Your task to perform on an android device: turn off improve location accuracy Image 0: 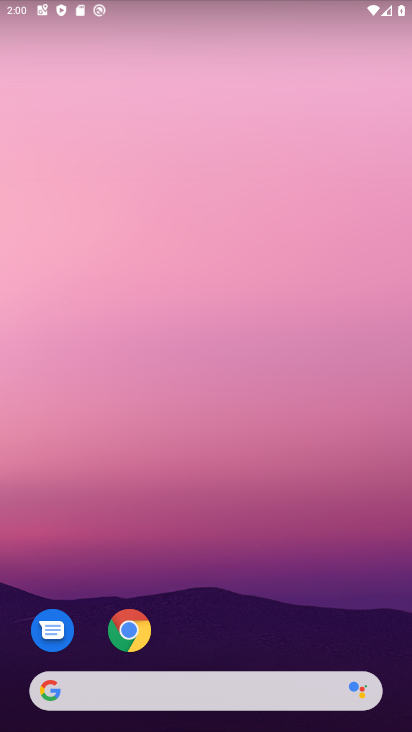
Step 0: drag from (169, 692) to (253, 87)
Your task to perform on an android device: turn off improve location accuracy Image 1: 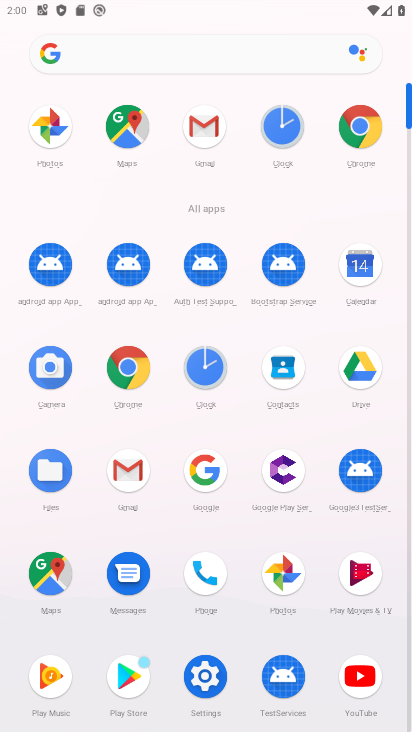
Step 1: click (211, 667)
Your task to perform on an android device: turn off improve location accuracy Image 2: 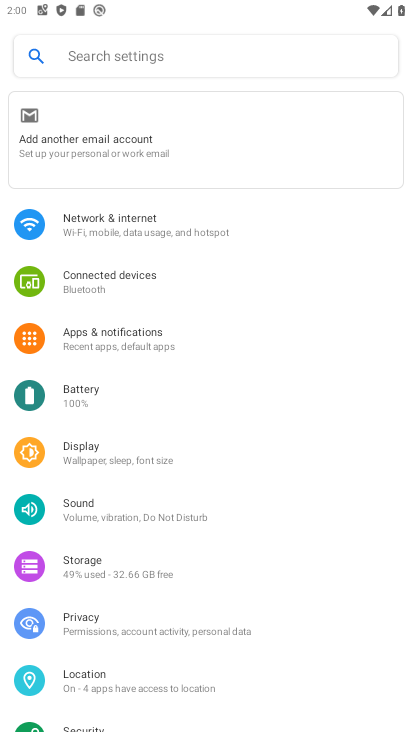
Step 2: click (110, 681)
Your task to perform on an android device: turn off improve location accuracy Image 3: 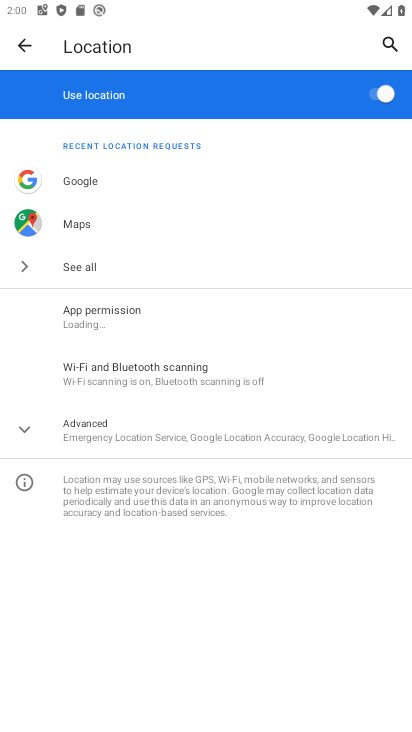
Step 3: click (100, 423)
Your task to perform on an android device: turn off improve location accuracy Image 4: 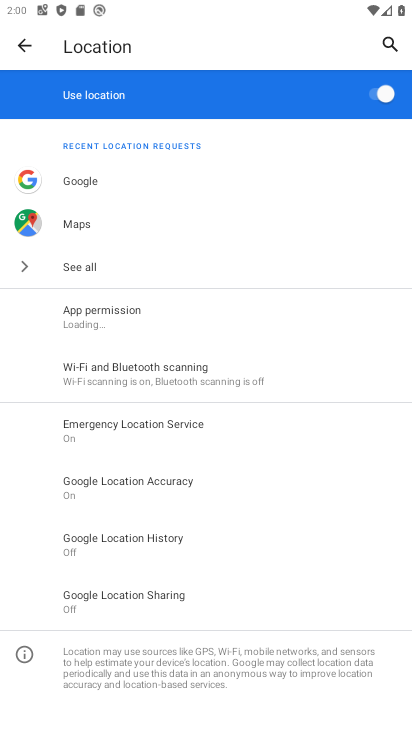
Step 4: click (150, 484)
Your task to perform on an android device: turn off improve location accuracy Image 5: 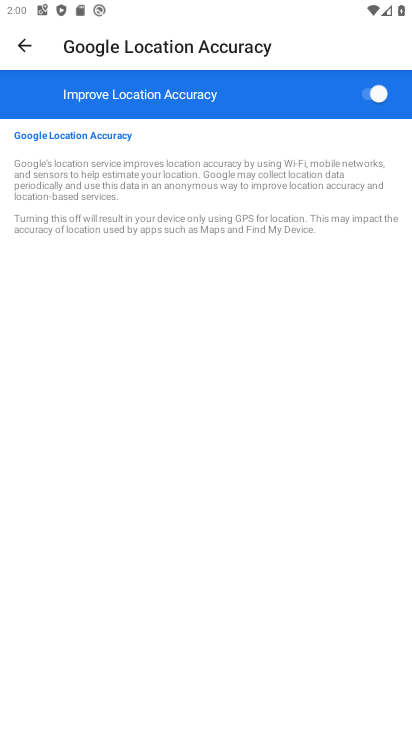
Step 5: click (370, 91)
Your task to perform on an android device: turn off improve location accuracy Image 6: 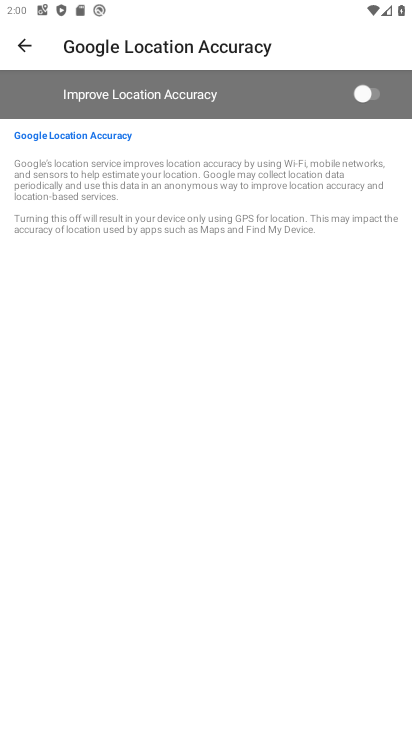
Step 6: task complete